Your task to perform on an android device: add a label to a message in the gmail app Image 0: 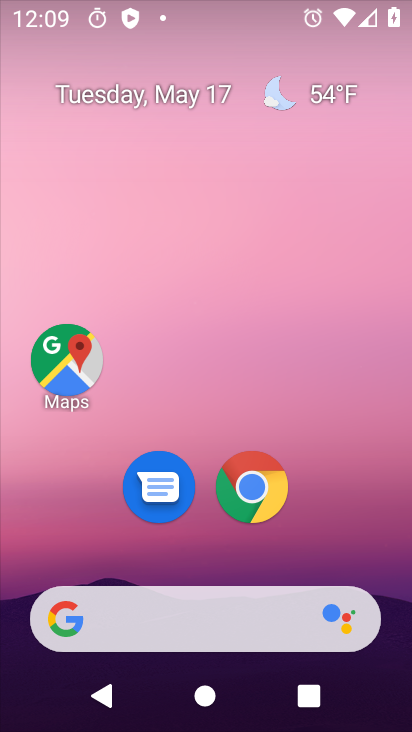
Step 0: drag from (213, 552) to (301, 86)
Your task to perform on an android device: add a label to a message in the gmail app Image 1: 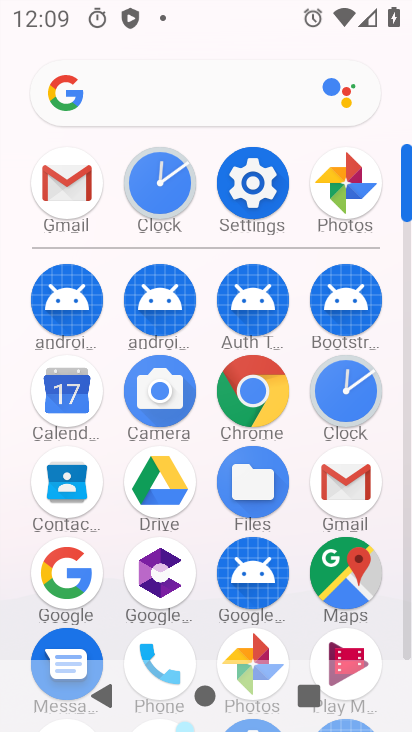
Step 1: click (355, 475)
Your task to perform on an android device: add a label to a message in the gmail app Image 2: 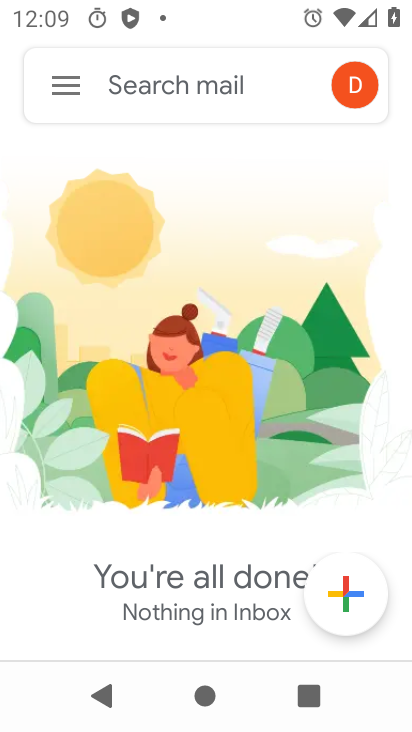
Step 2: click (62, 80)
Your task to perform on an android device: add a label to a message in the gmail app Image 3: 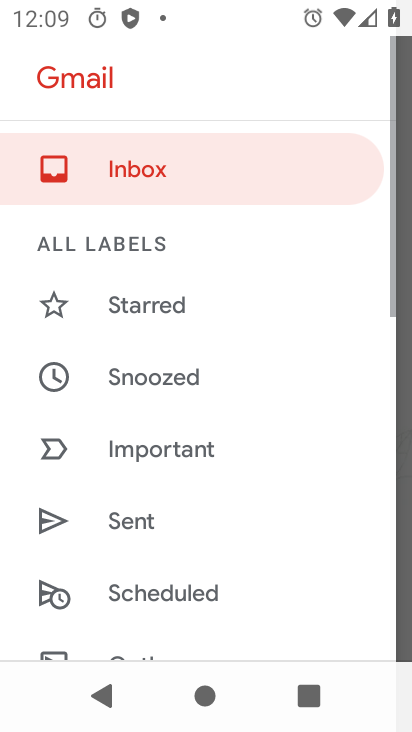
Step 3: drag from (179, 568) to (236, 63)
Your task to perform on an android device: add a label to a message in the gmail app Image 4: 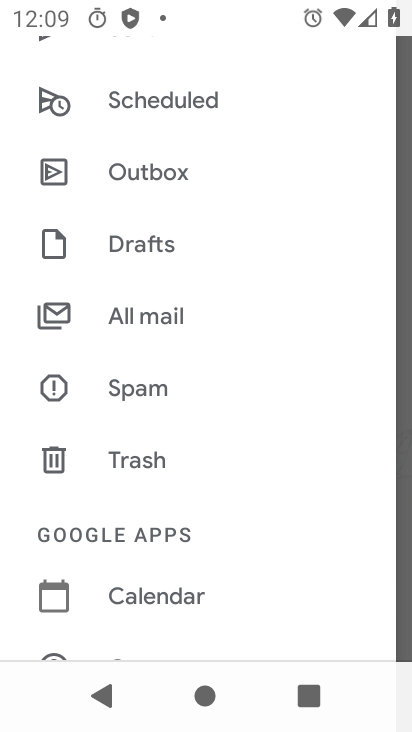
Step 4: click (140, 321)
Your task to perform on an android device: add a label to a message in the gmail app Image 5: 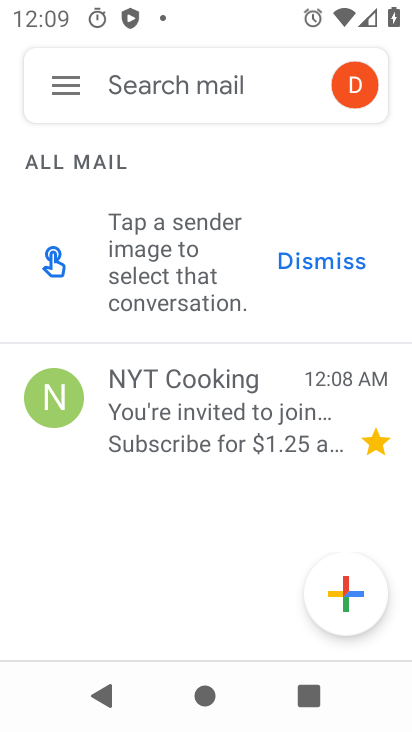
Step 5: click (132, 432)
Your task to perform on an android device: add a label to a message in the gmail app Image 6: 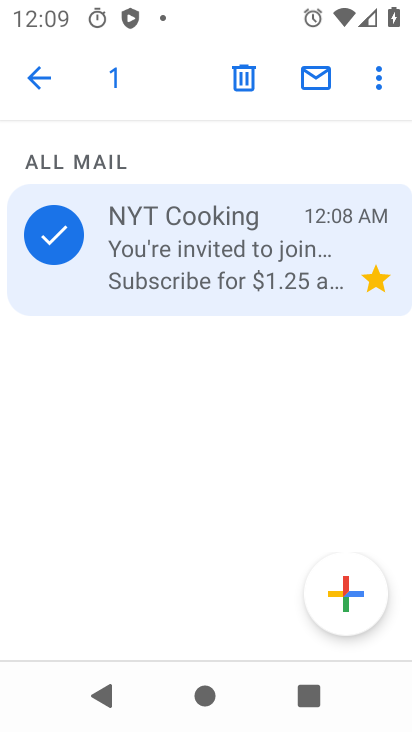
Step 6: click (377, 75)
Your task to perform on an android device: add a label to a message in the gmail app Image 7: 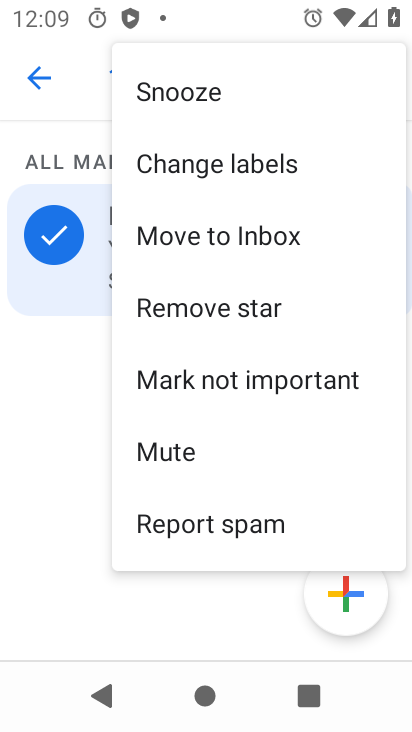
Step 7: click (237, 161)
Your task to perform on an android device: add a label to a message in the gmail app Image 8: 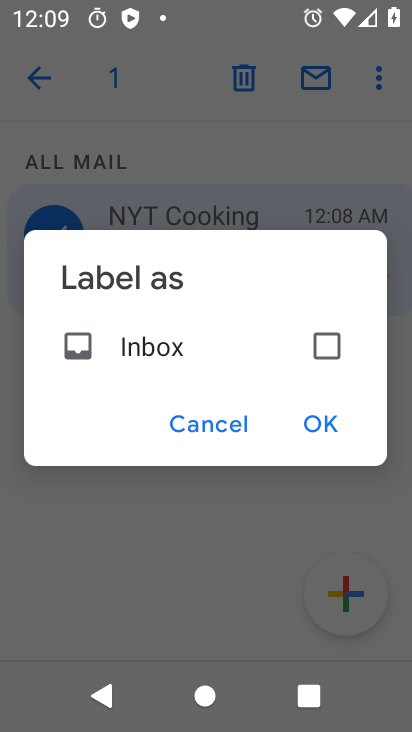
Step 8: click (139, 345)
Your task to perform on an android device: add a label to a message in the gmail app Image 9: 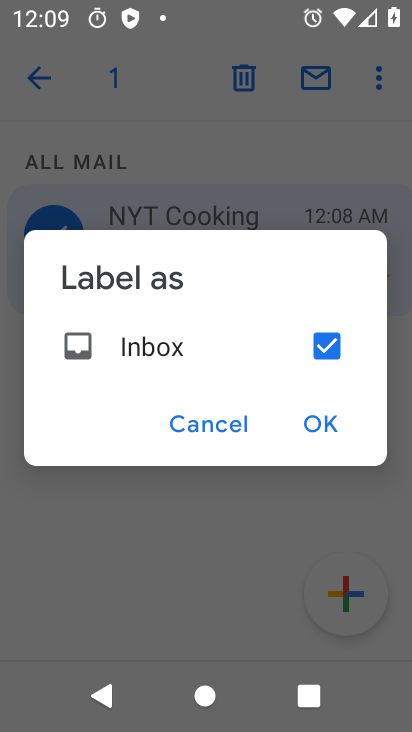
Step 9: click (307, 431)
Your task to perform on an android device: add a label to a message in the gmail app Image 10: 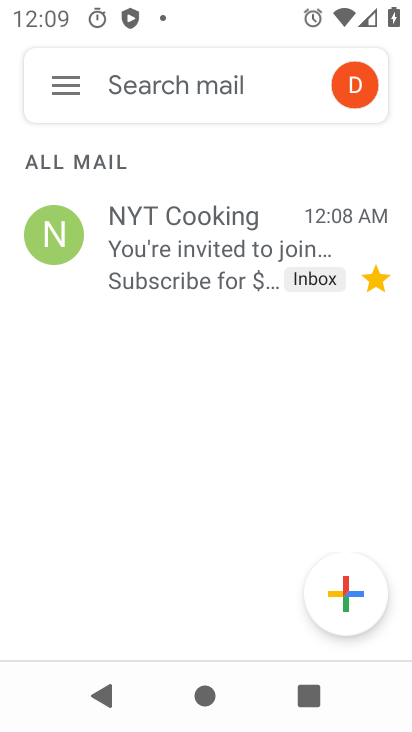
Step 10: task complete